Your task to perform on an android device: open sync settings in chrome Image 0: 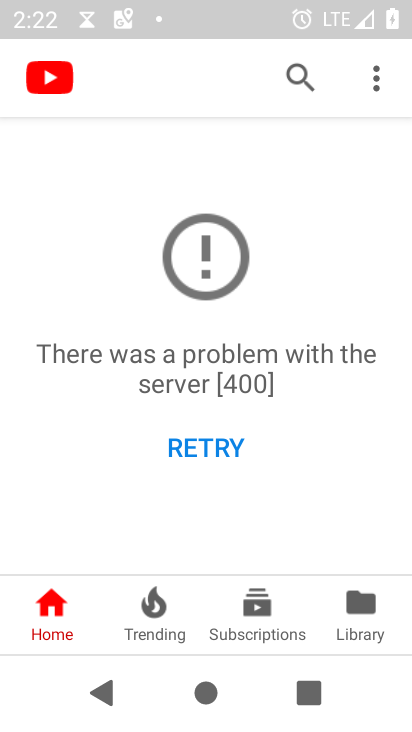
Step 0: press home button
Your task to perform on an android device: open sync settings in chrome Image 1: 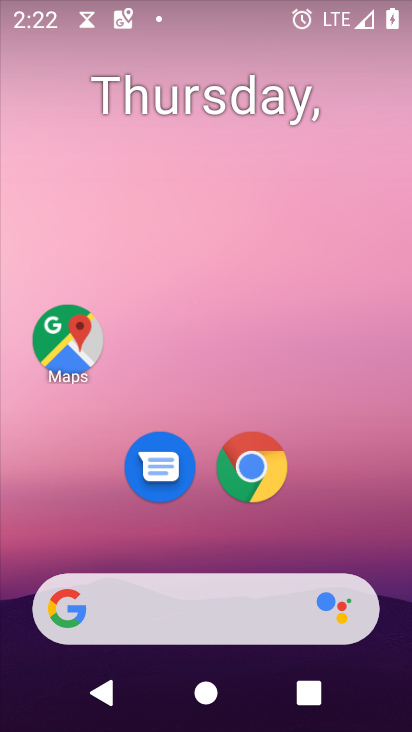
Step 1: click (240, 469)
Your task to perform on an android device: open sync settings in chrome Image 2: 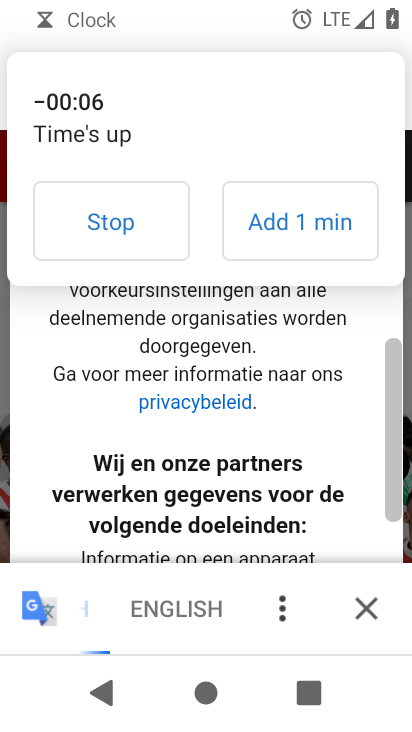
Step 2: click (112, 220)
Your task to perform on an android device: open sync settings in chrome Image 3: 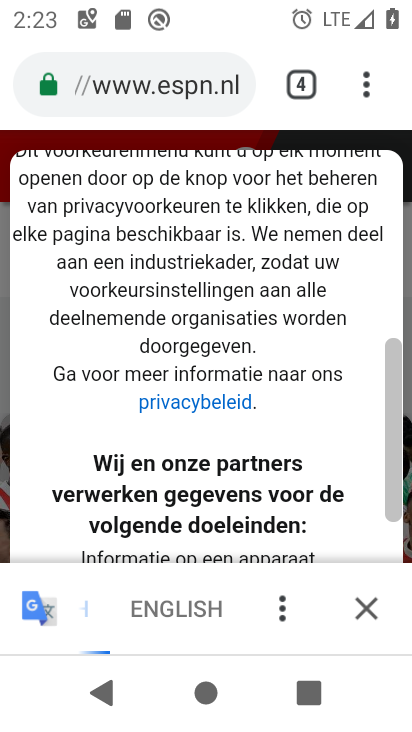
Step 3: click (363, 70)
Your task to perform on an android device: open sync settings in chrome Image 4: 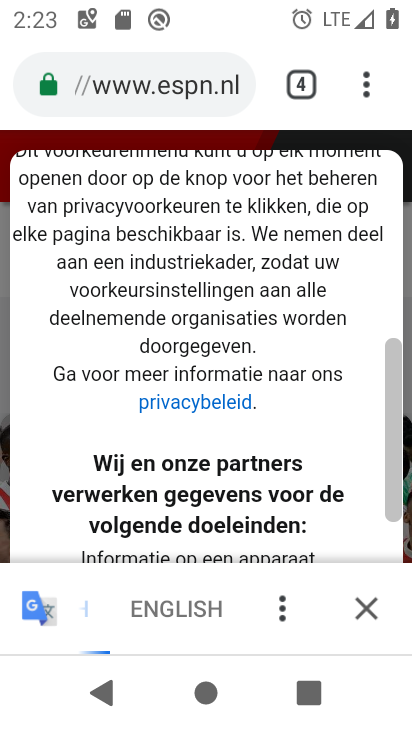
Step 4: click (376, 83)
Your task to perform on an android device: open sync settings in chrome Image 5: 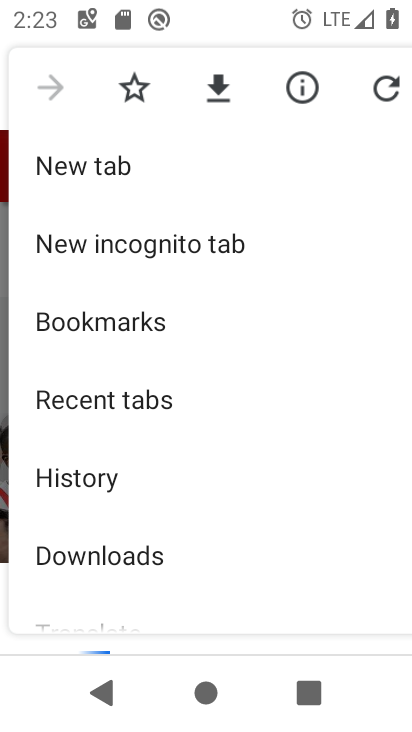
Step 5: drag from (199, 478) to (135, 43)
Your task to perform on an android device: open sync settings in chrome Image 6: 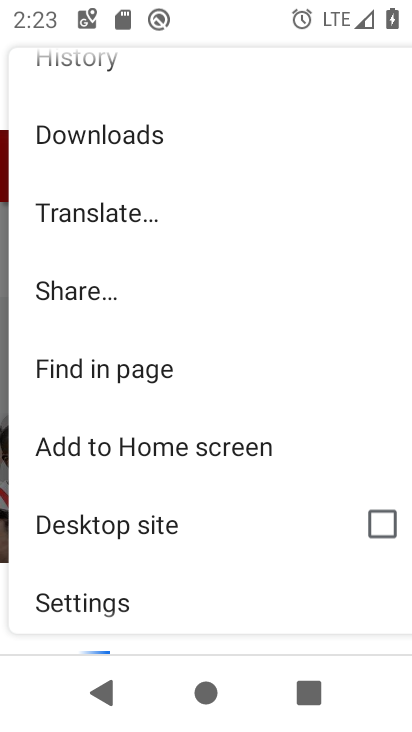
Step 6: click (96, 577)
Your task to perform on an android device: open sync settings in chrome Image 7: 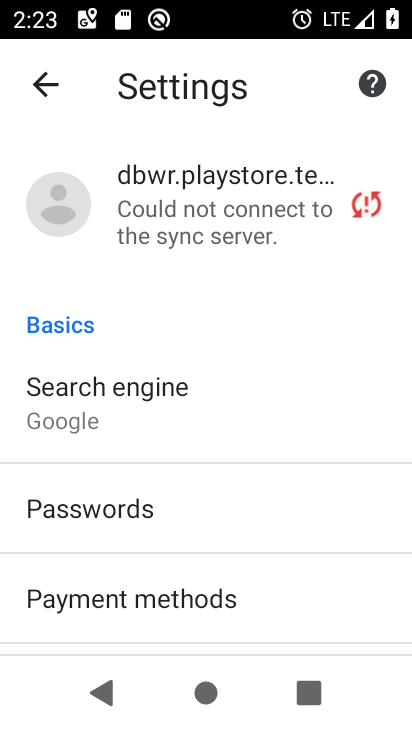
Step 7: drag from (293, 632) to (210, 3)
Your task to perform on an android device: open sync settings in chrome Image 8: 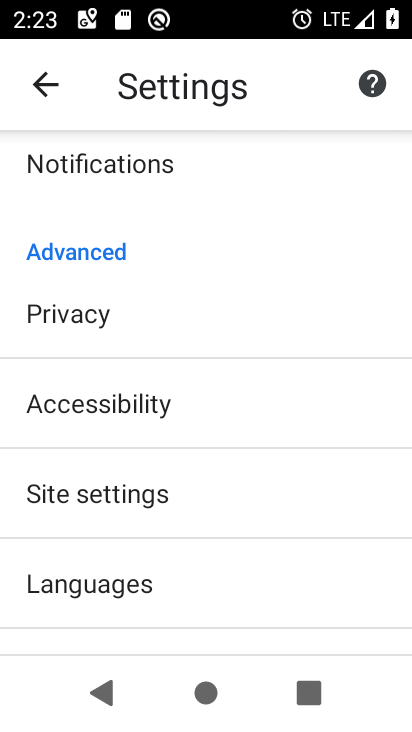
Step 8: drag from (222, 196) to (109, 727)
Your task to perform on an android device: open sync settings in chrome Image 9: 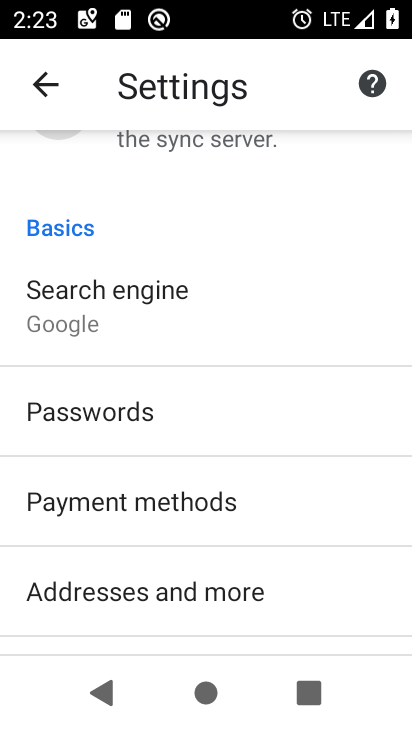
Step 9: click (112, 157)
Your task to perform on an android device: open sync settings in chrome Image 10: 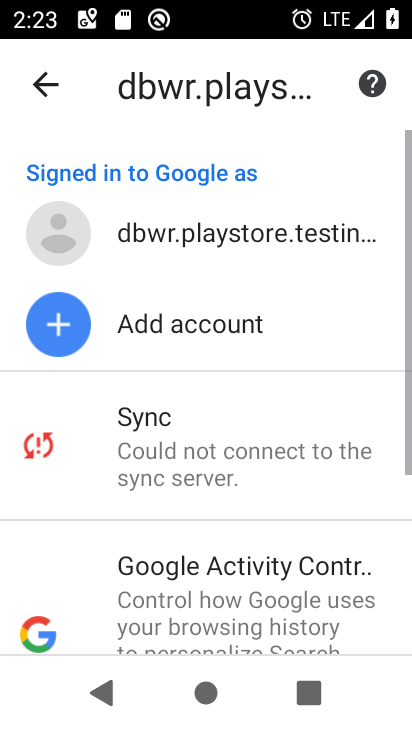
Step 10: task complete